Your task to perform on an android device: turn on improve location accuracy Image 0: 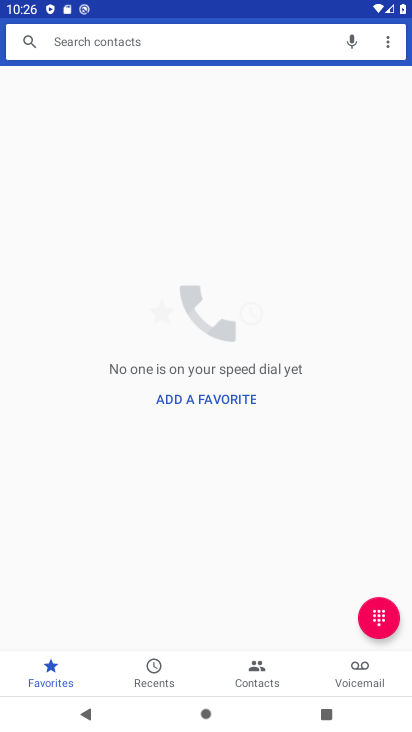
Step 0: press home button
Your task to perform on an android device: turn on improve location accuracy Image 1: 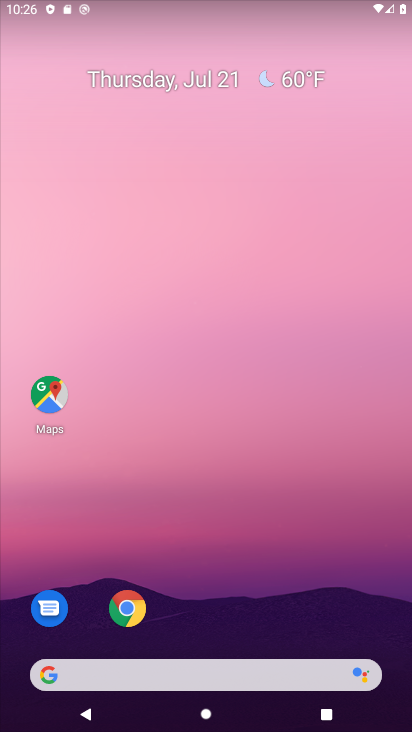
Step 1: drag from (256, 636) to (222, 1)
Your task to perform on an android device: turn on improve location accuracy Image 2: 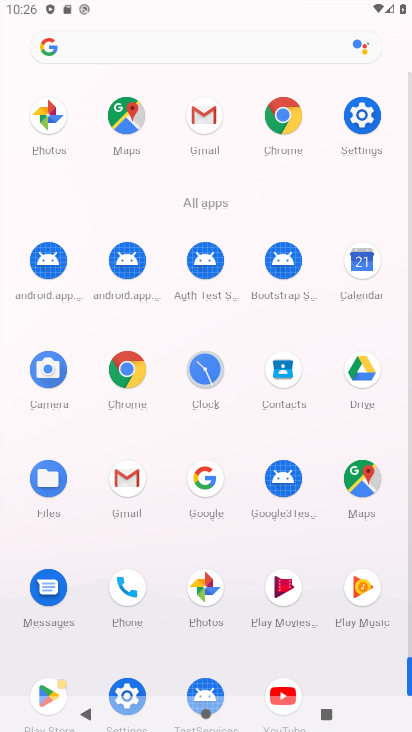
Step 2: click (118, 693)
Your task to perform on an android device: turn on improve location accuracy Image 3: 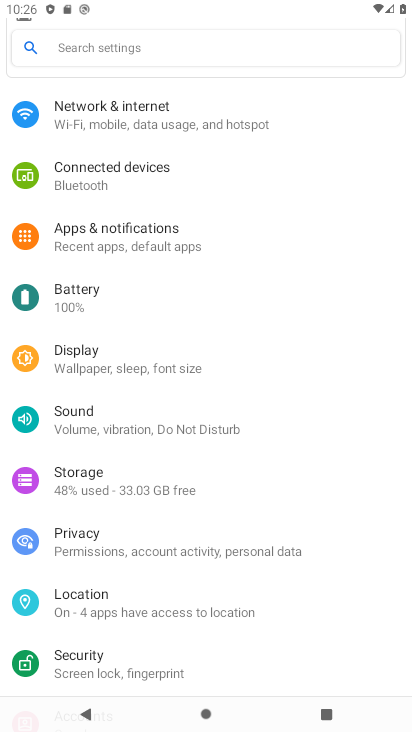
Step 3: click (109, 605)
Your task to perform on an android device: turn on improve location accuracy Image 4: 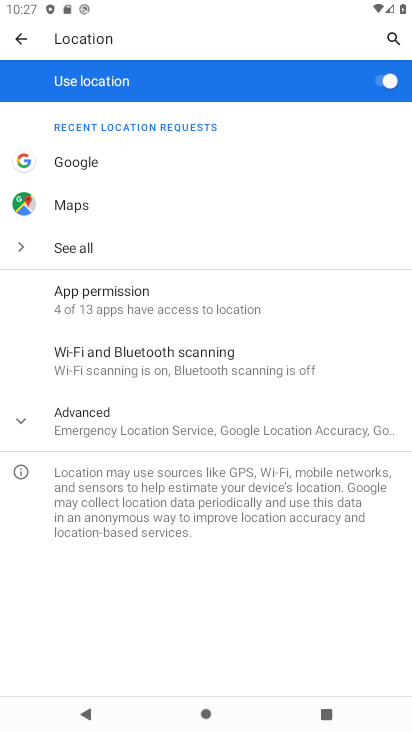
Step 4: click (157, 423)
Your task to perform on an android device: turn on improve location accuracy Image 5: 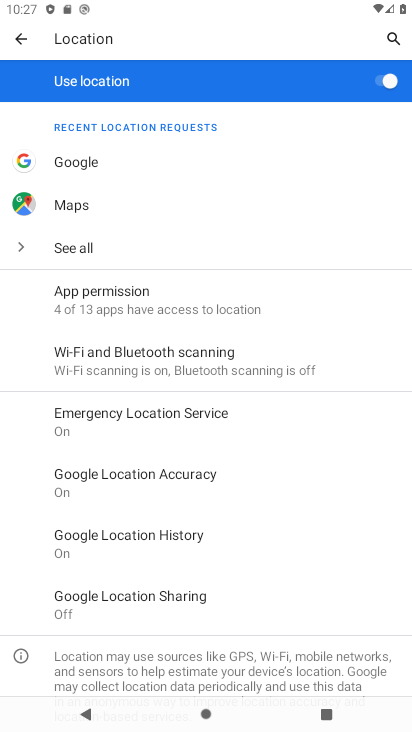
Step 5: click (204, 476)
Your task to perform on an android device: turn on improve location accuracy Image 6: 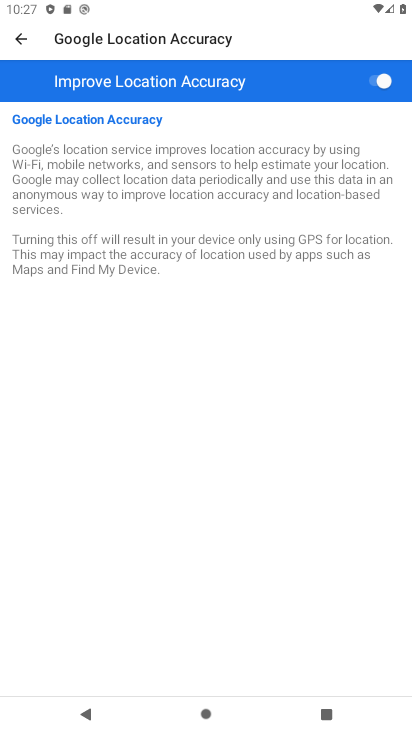
Step 6: task complete